Your task to perform on an android device: toggle translation in the chrome app Image 0: 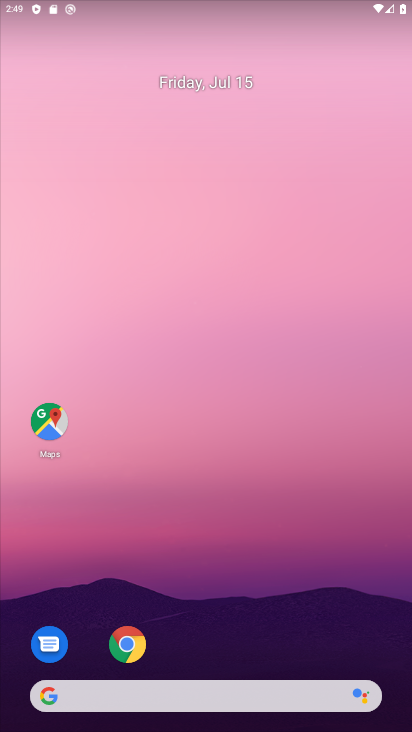
Step 0: click (127, 644)
Your task to perform on an android device: toggle translation in the chrome app Image 1: 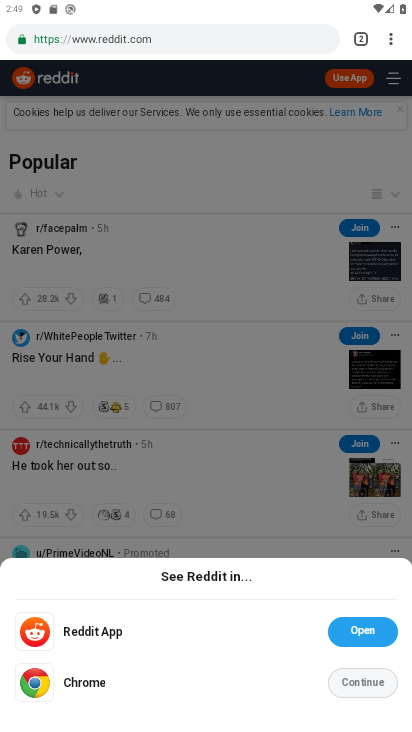
Step 1: drag from (388, 43) to (252, 474)
Your task to perform on an android device: toggle translation in the chrome app Image 2: 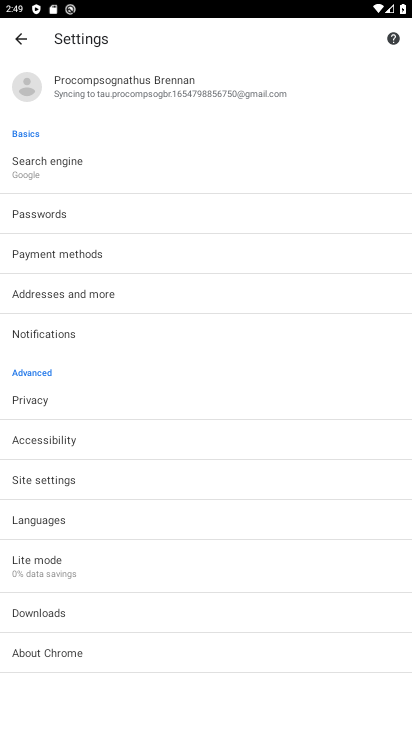
Step 2: click (57, 519)
Your task to perform on an android device: toggle translation in the chrome app Image 3: 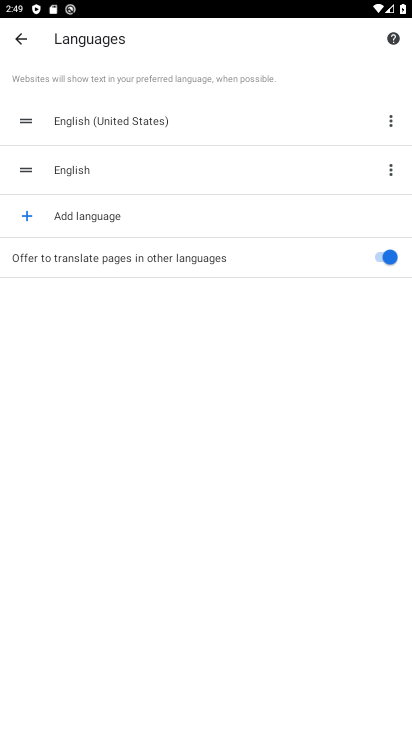
Step 3: click (386, 253)
Your task to perform on an android device: toggle translation in the chrome app Image 4: 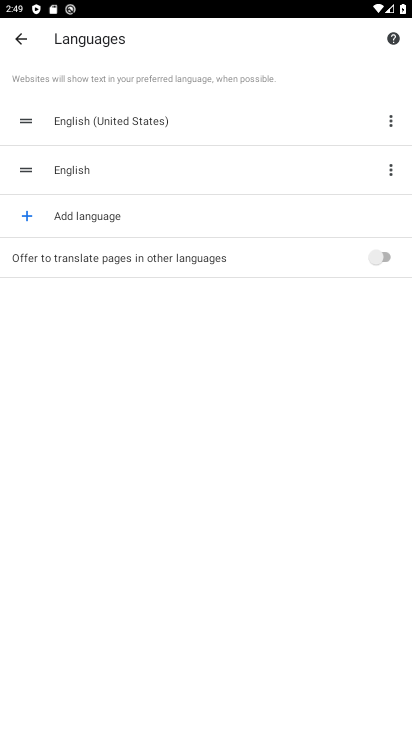
Step 4: task complete